Your task to perform on an android device: What is the news today? Image 0: 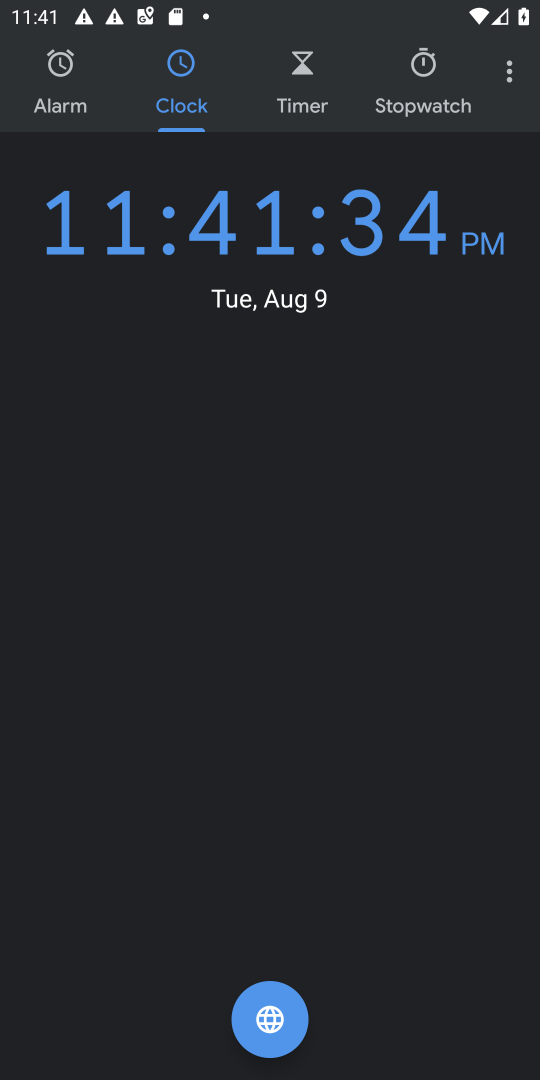
Step 0: press home button
Your task to perform on an android device: What is the news today? Image 1: 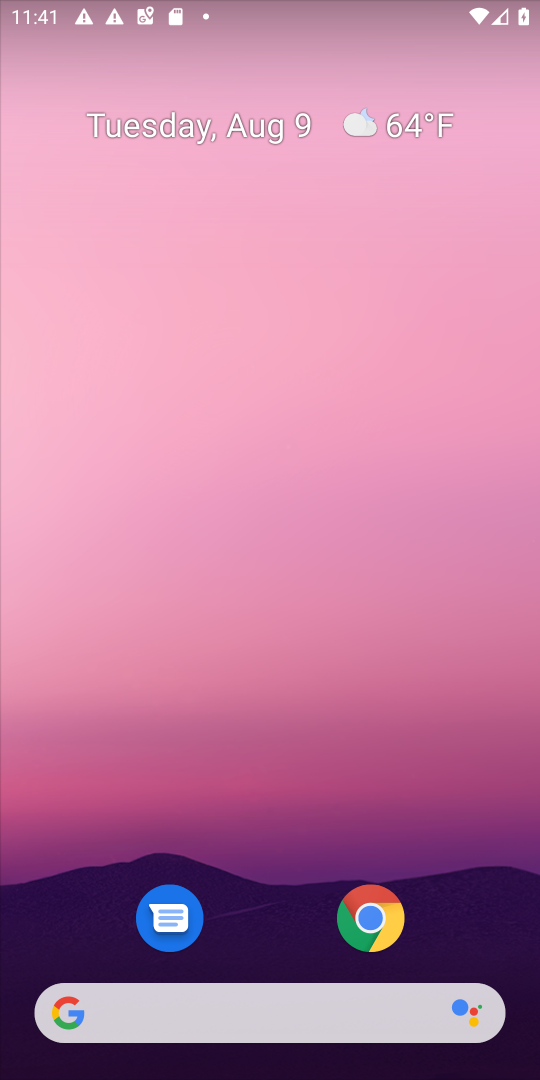
Step 1: drag from (255, 912) to (322, 275)
Your task to perform on an android device: What is the news today? Image 2: 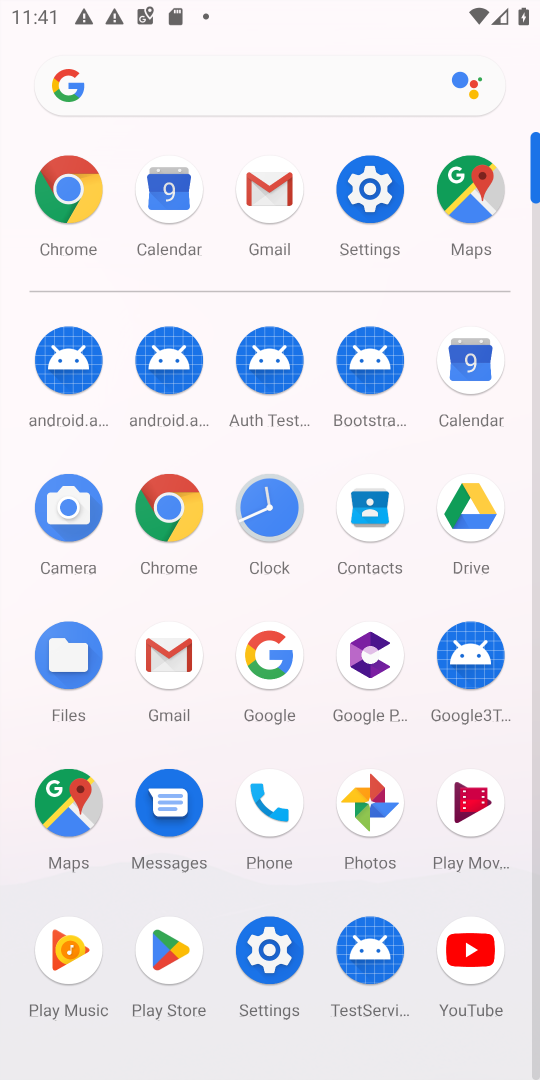
Step 2: click (167, 505)
Your task to perform on an android device: What is the news today? Image 3: 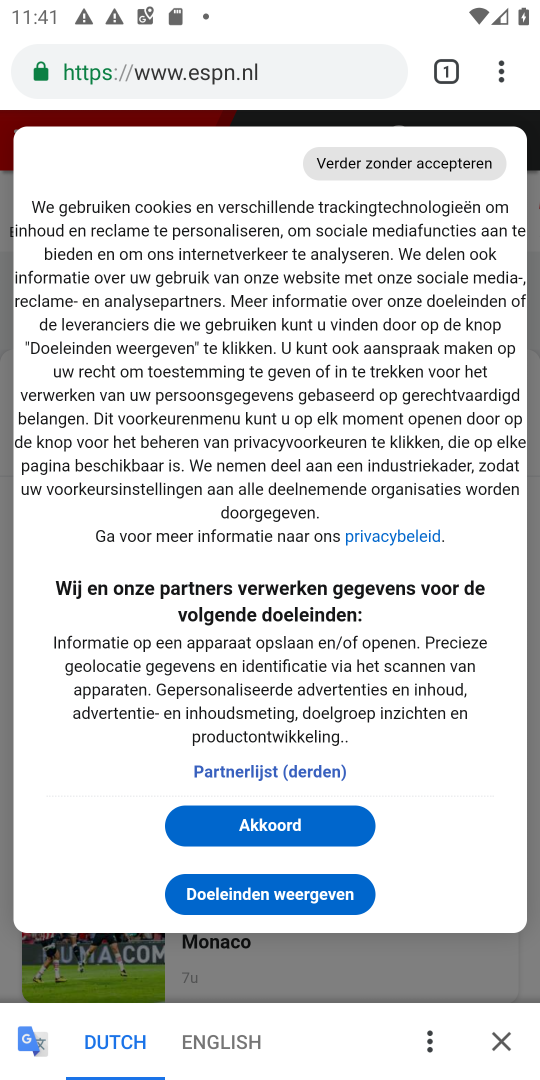
Step 3: click (270, 71)
Your task to perform on an android device: What is the news today? Image 4: 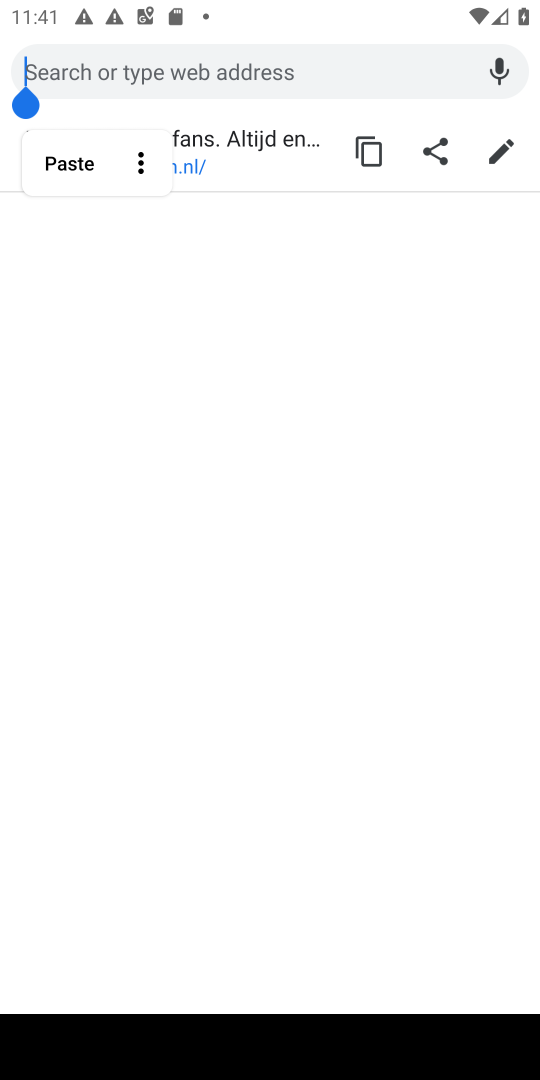
Step 4: type "news"
Your task to perform on an android device: What is the news today? Image 5: 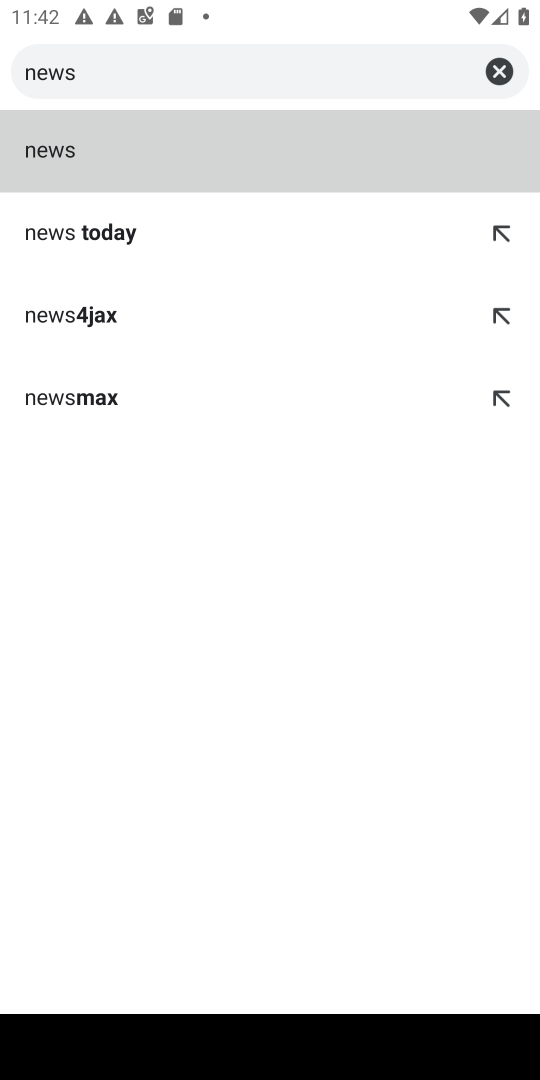
Step 5: click (111, 159)
Your task to perform on an android device: What is the news today? Image 6: 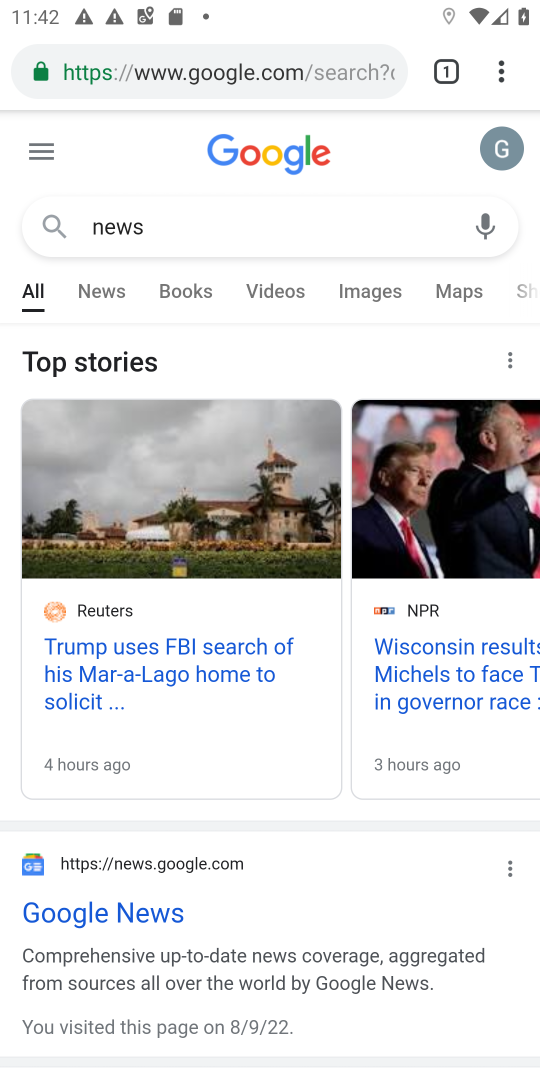
Step 6: click (38, 912)
Your task to perform on an android device: What is the news today? Image 7: 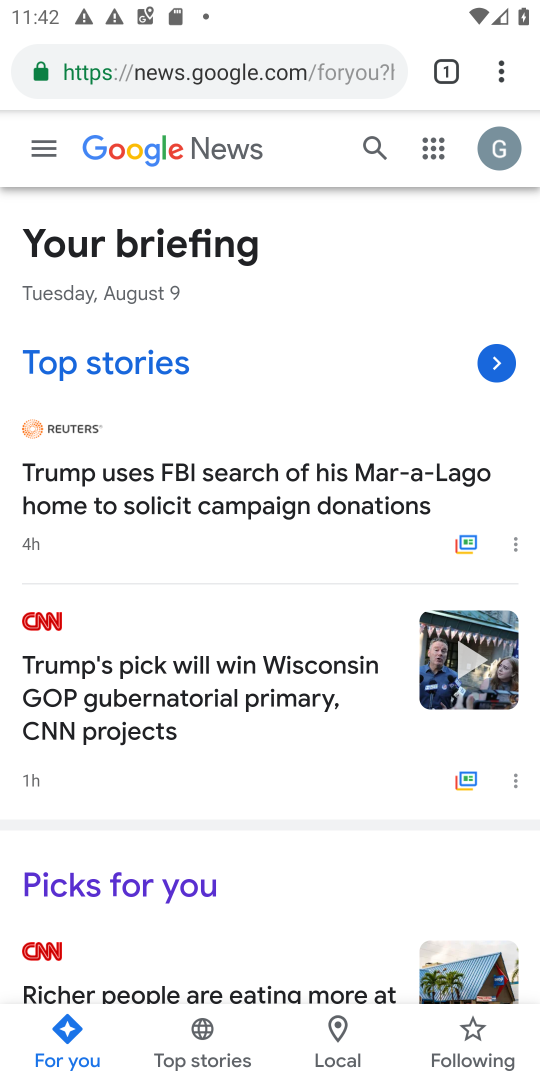
Step 7: task complete